Your task to perform on an android device: Go to Amazon Image 0: 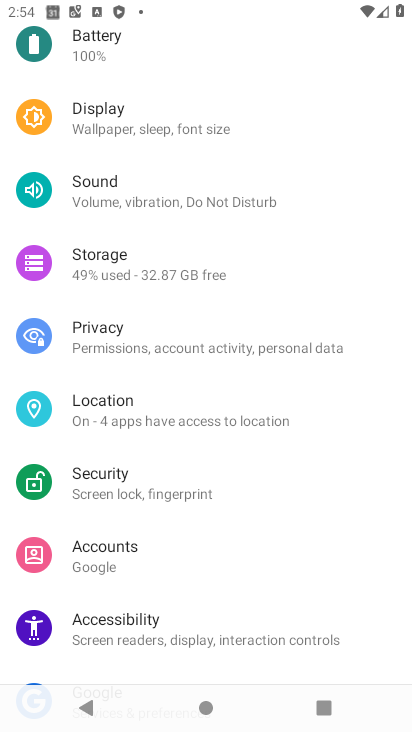
Step 0: press home button
Your task to perform on an android device: Go to Amazon Image 1: 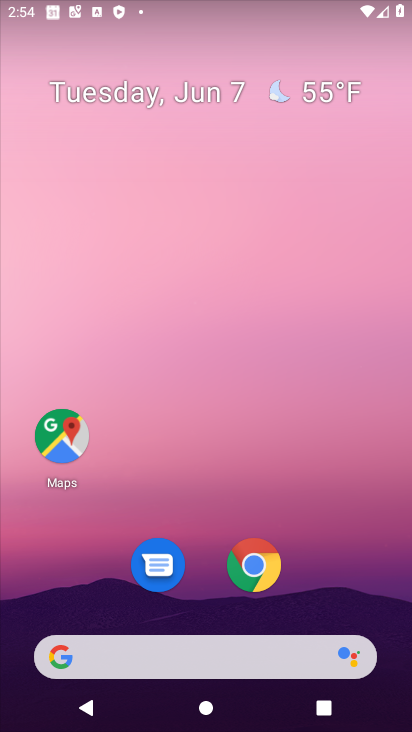
Step 1: drag from (294, 643) to (261, 102)
Your task to perform on an android device: Go to Amazon Image 2: 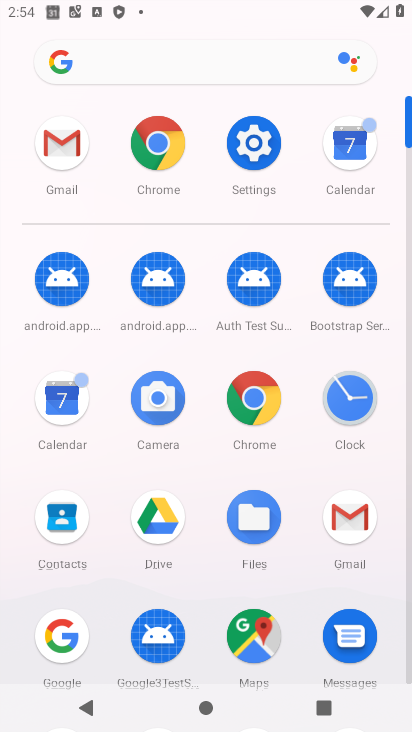
Step 2: click (252, 418)
Your task to perform on an android device: Go to Amazon Image 3: 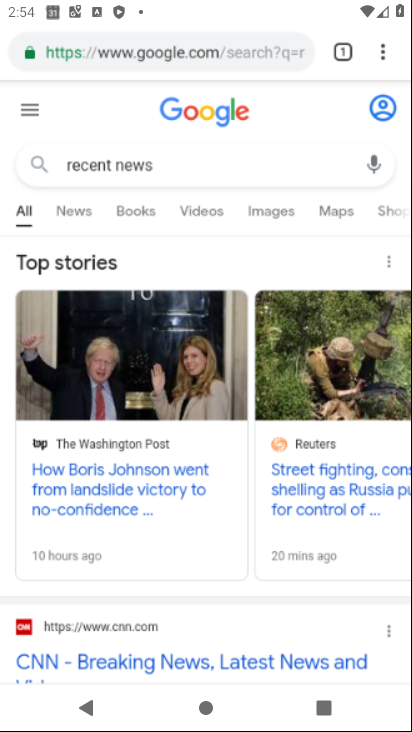
Step 3: drag from (381, 63) to (216, 98)
Your task to perform on an android device: Go to Amazon Image 4: 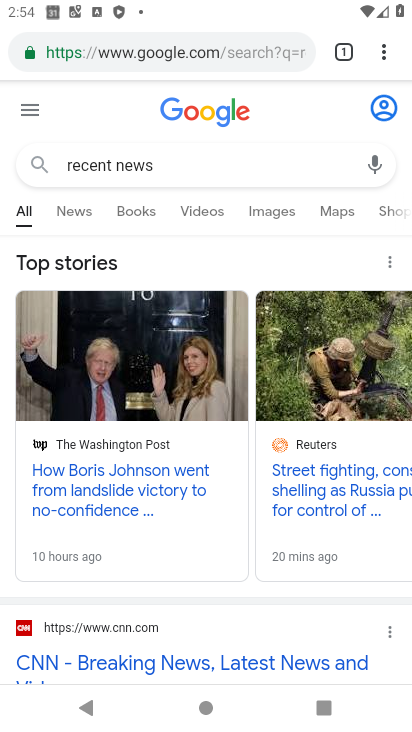
Step 4: click (380, 54)
Your task to perform on an android device: Go to Amazon Image 5: 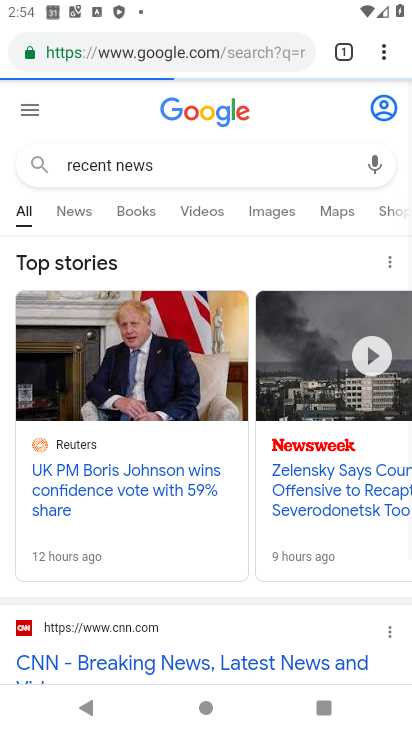
Step 5: drag from (387, 54) to (304, 86)
Your task to perform on an android device: Go to Amazon Image 6: 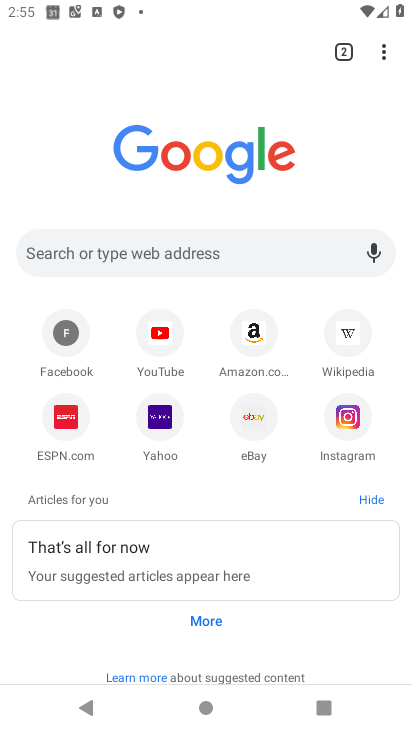
Step 6: click (255, 332)
Your task to perform on an android device: Go to Amazon Image 7: 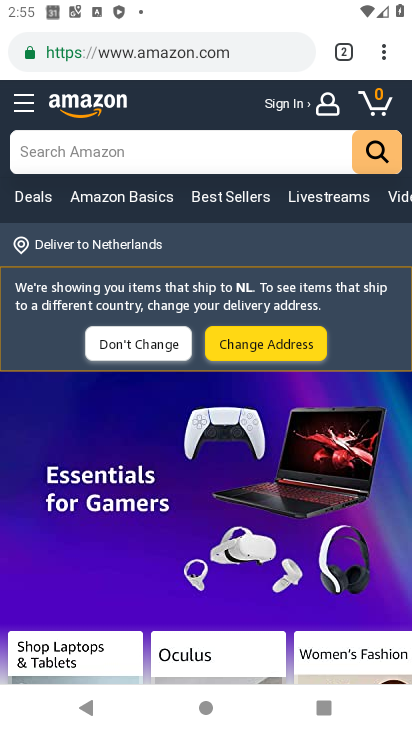
Step 7: task complete